Your task to perform on an android device: Open internet settings Image 0: 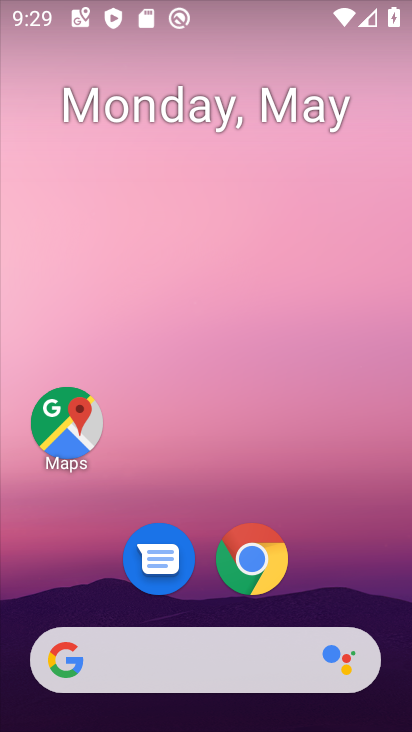
Step 0: drag from (333, 566) to (212, 194)
Your task to perform on an android device: Open internet settings Image 1: 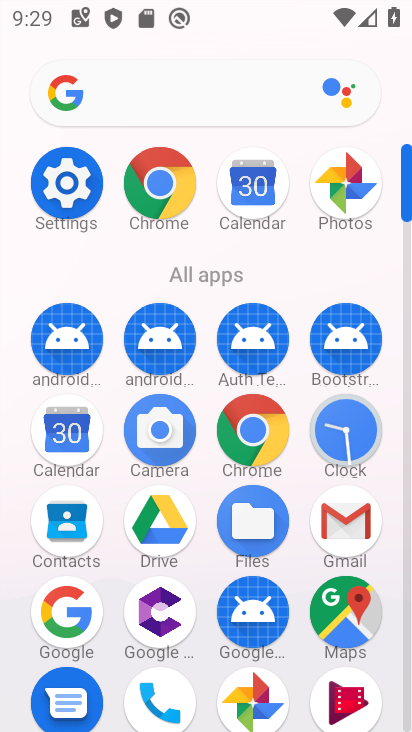
Step 1: click (68, 187)
Your task to perform on an android device: Open internet settings Image 2: 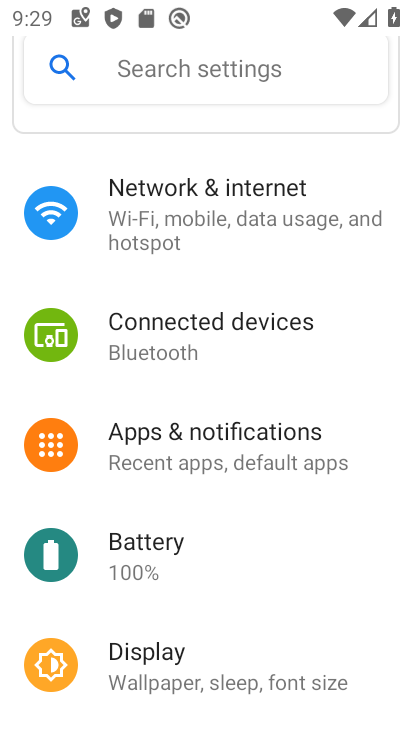
Step 2: click (204, 204)
Your task to perform on an android device: Open internet settings Image 3: 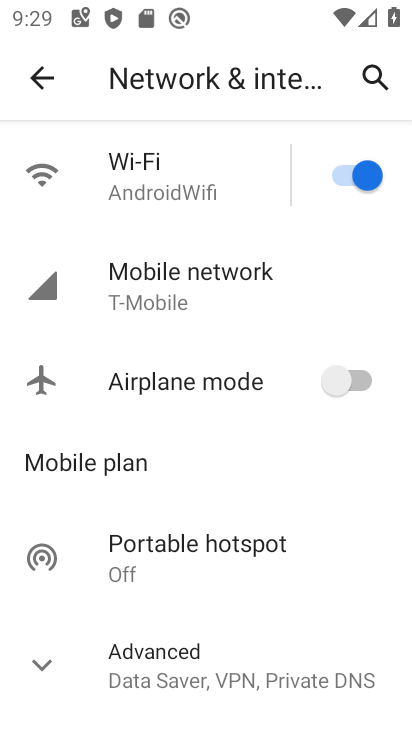
Step 3: click (200, 265)
Your task to perform on an android device: Open internet settings Image 4: 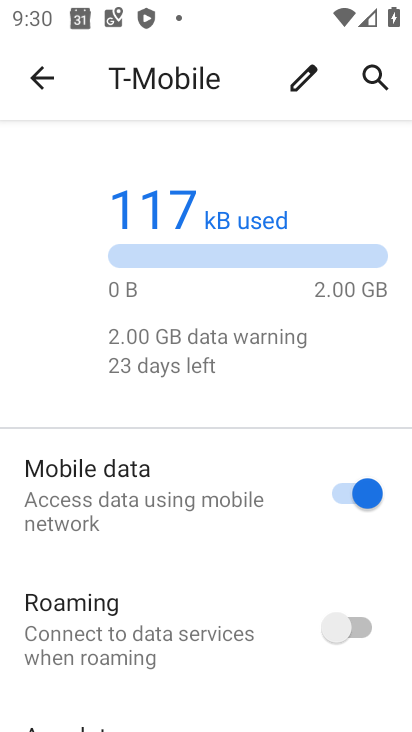
Step 4: task complete